Your task to perform on an android device: When is my next meeting? Image 0: 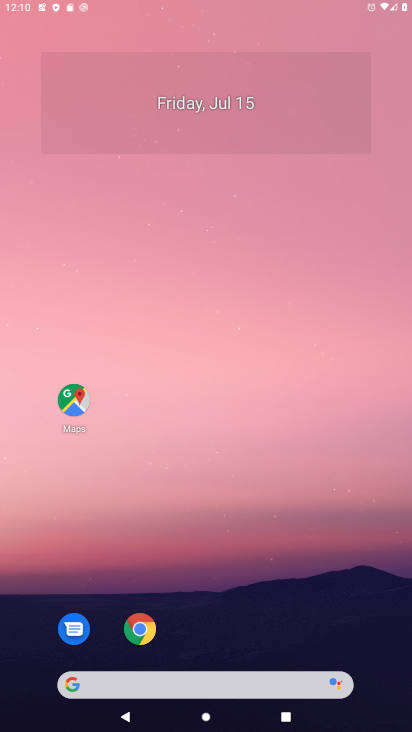
Step 0: press home button
Your task to perform on an android device: When is my next meeting? Image 1: 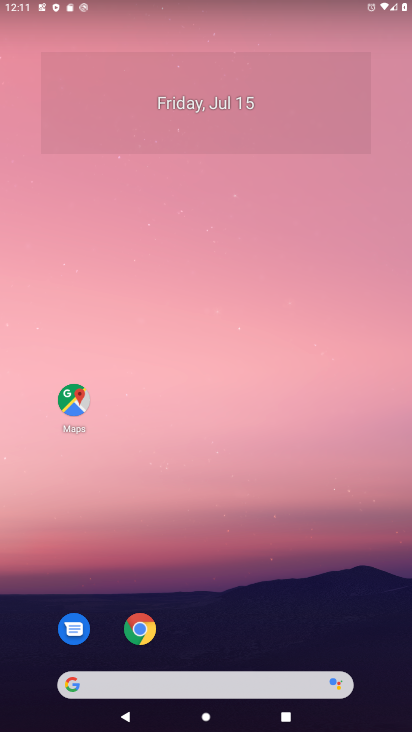
Step 1: drag from (269, 625) to (298, 139)
Your task to perform on an android device: When is my next meeting? Image 2: 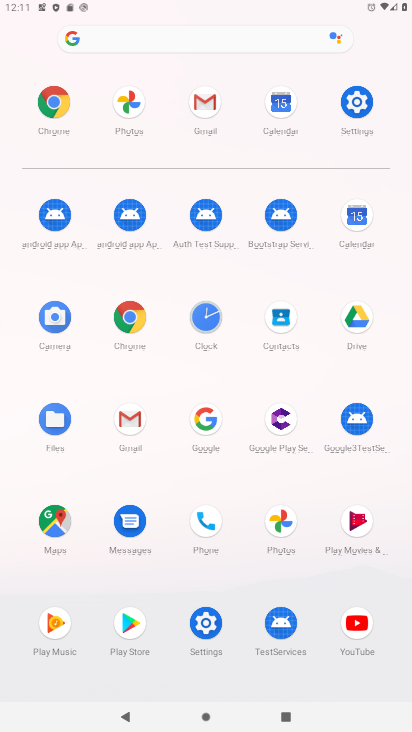
Step 2: click (361, 218)
Your task to perform on an android device: When is my next meeting? Image 3: 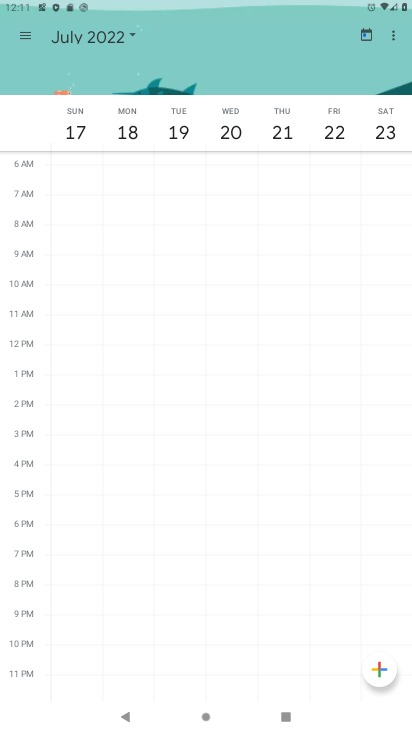
Step 3: click (27, 33)
Your task to perform on an android device: When is my next meeting? Image 4: 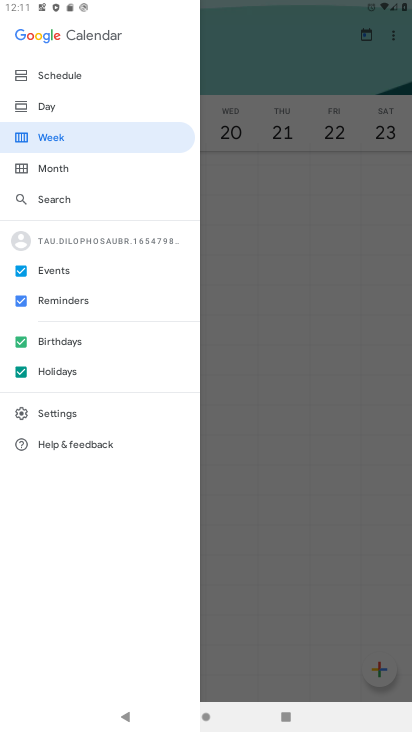
Step 4: click (69, 74)
Your task to perform on an android device: When is my next meeting? Image 5: 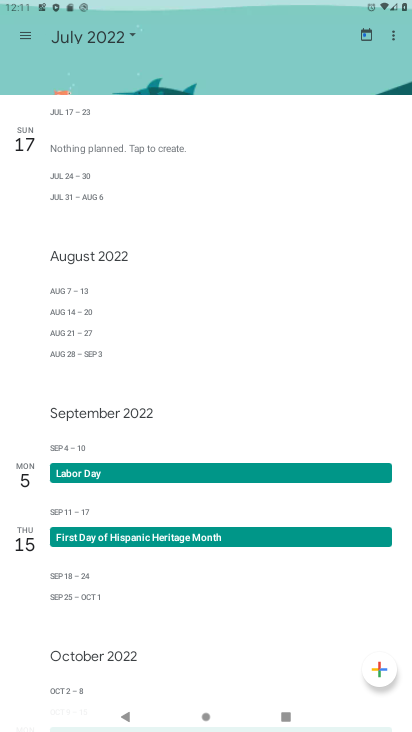
Step 5: task complete